Your task to perform on an android device: snooze an email in the gmail app Image 0: 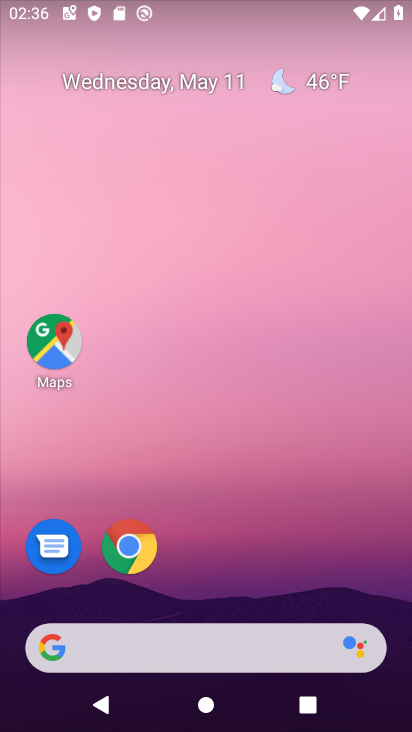
Step 0: drag from (226, 548) to (268, 28)
Your task to perform on an android device: snooze an email in the gmail app Image 1: 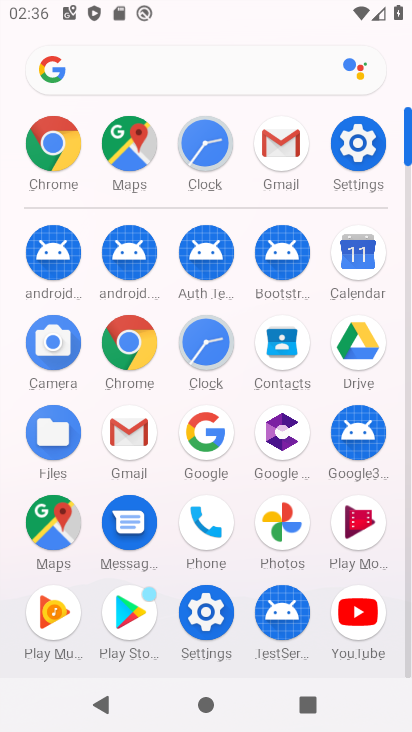
Step 1: click (131, 424)
Your task to perform on an android device: snooze an email in the gmail app Image 2: 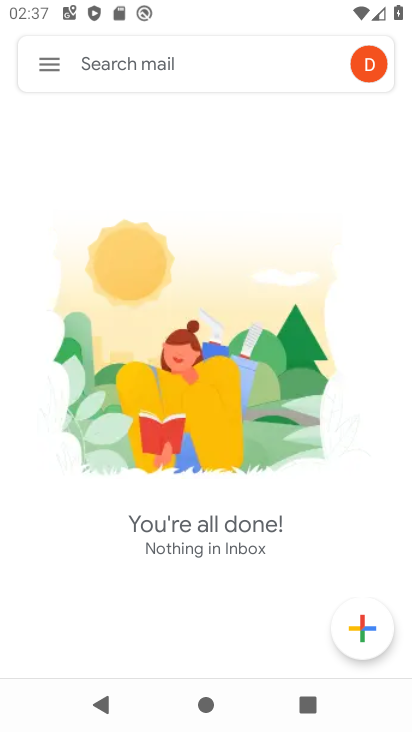
Step 2: click (42, 46)
Your task to perform on an android device: snooze an email in the gmail app Image 3: 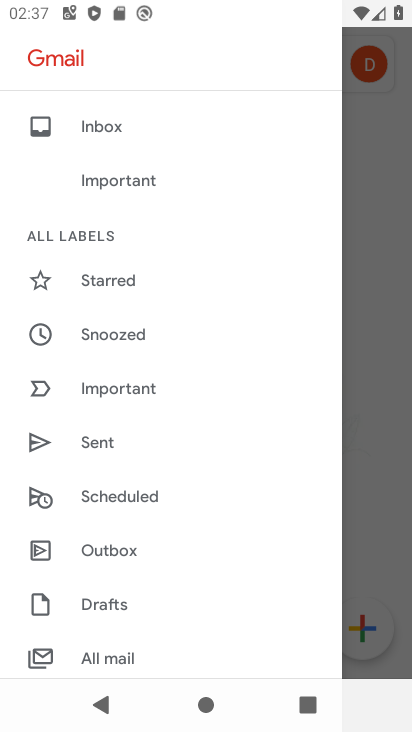
Step 3: click (366, 243)
Your task to perform on an android device: snooze an email in the gmail app Image 4: 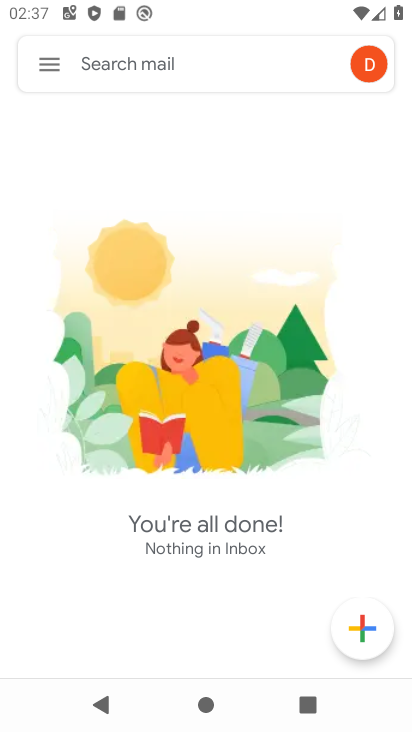
Step 4: task complete